Your task to perform on an android device: Go to display settings Image 0: 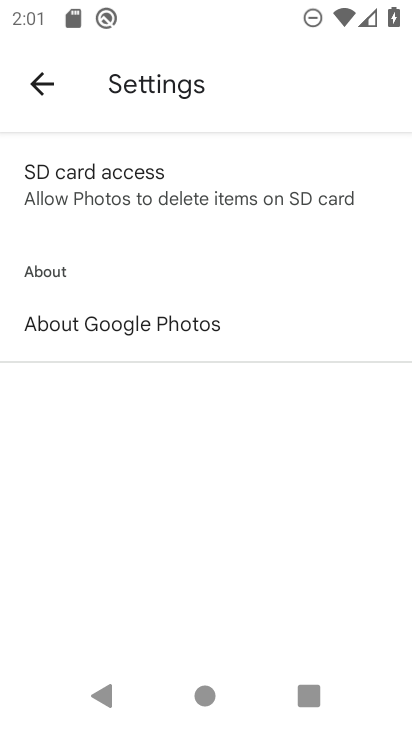
Step 0: press home button
Your task to perform on an android device: Go to display settings Image 1: 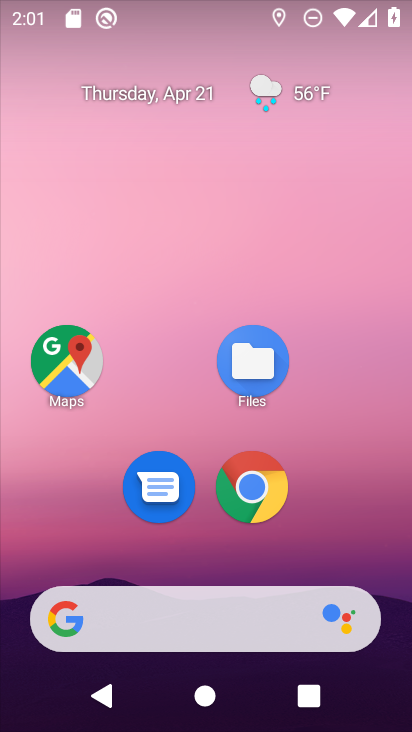
Step 1: drag from (346, 425) to (360, 82)
Your task to perform on an android device: Go to display settings Image 2: 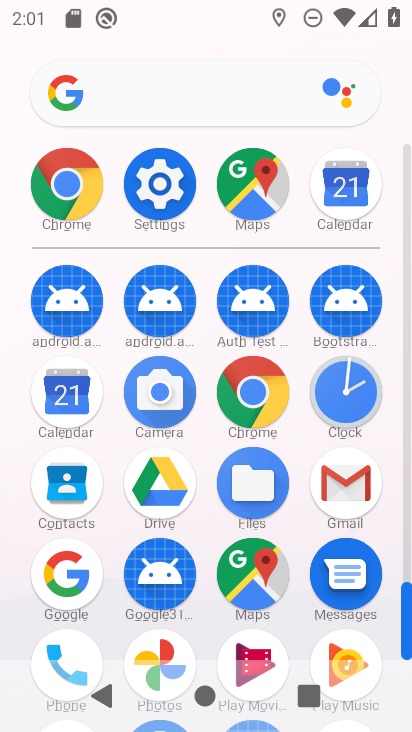
Step 2: click (143, 182)
Your task to perform on an android device: Go to display settings Image 3: 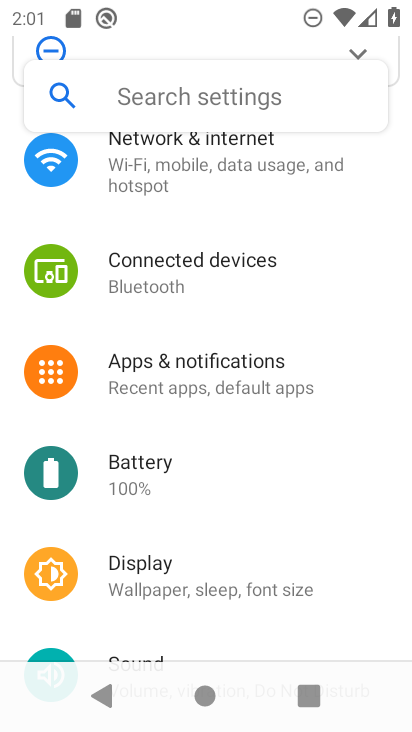
Step 3: click (172, 572)
Your task to perform on an android device: Go to display settings Image 4: 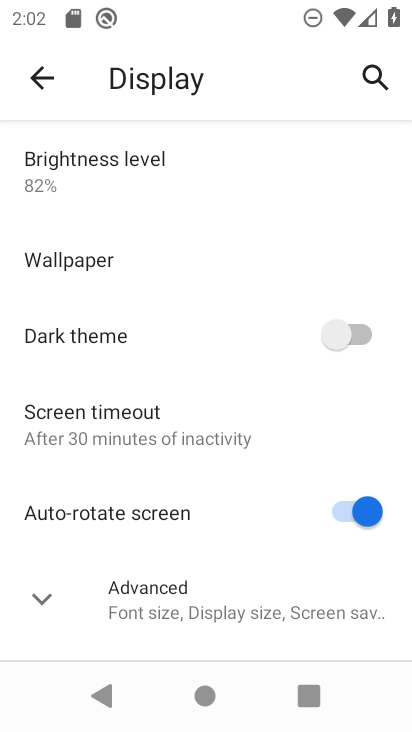
Step 4: click (167, 584)
Your task to perform on an android device: Go to display settings Image 5: 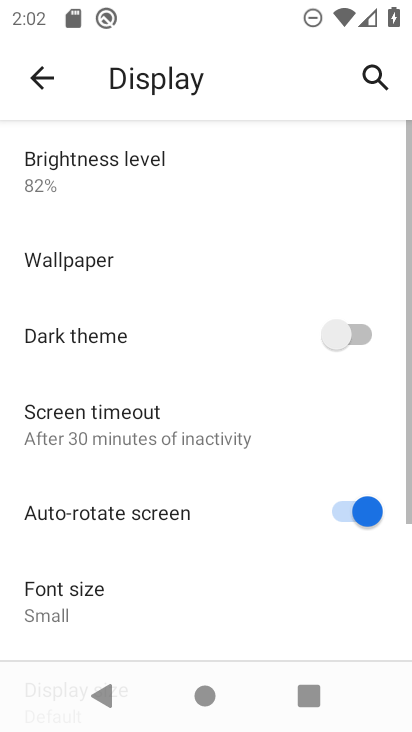
Step 5: task complete